Your task to perform on an android device: change the clock display to analog Image 0: 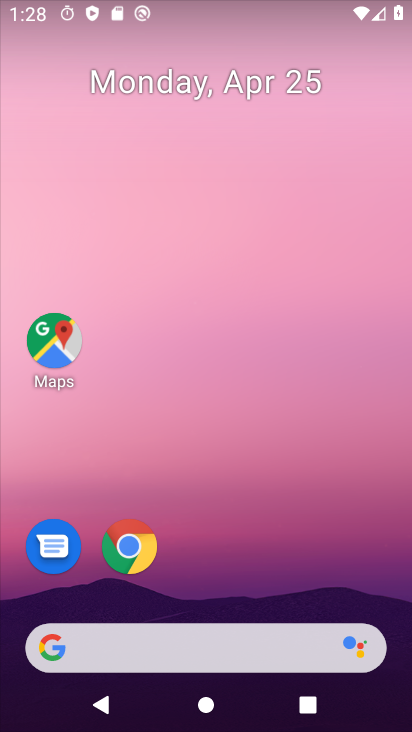
Step 0: drag from (220, 617) to (196, 5)
Your task to perform on an android device: change the clock display to analog Image 1: 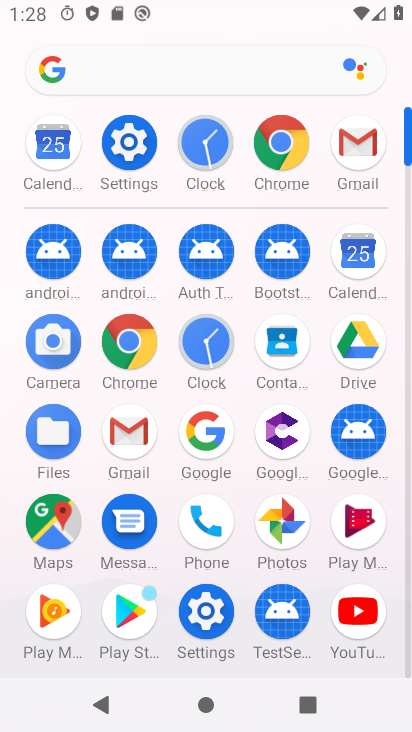
Step 1: click (217, 354)
Your task to perform on an android device: change the clock display to analog Image 2: 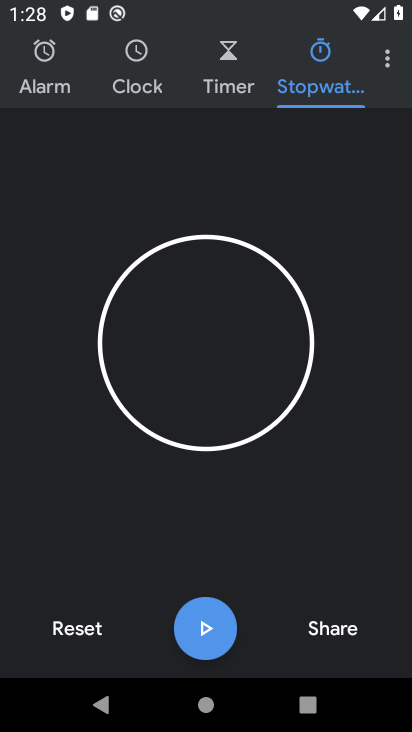
Step 2: click (384, 73)
Your task to perform on an android device: change the clock display to analog Image 3: 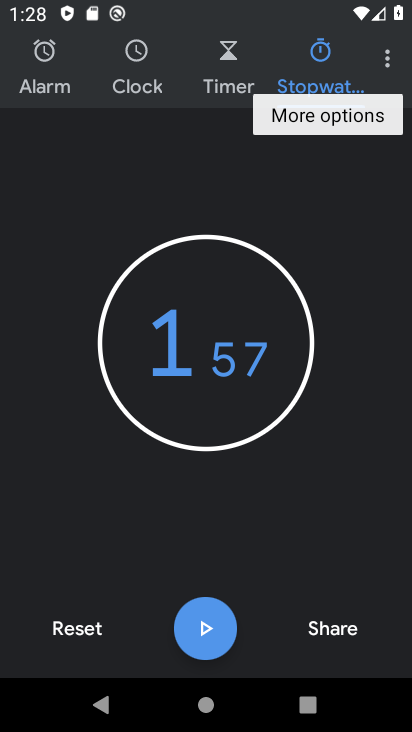
Step 3: click (384, 73)
Your task to perform on an android device: change the clock display to analog Image 4: 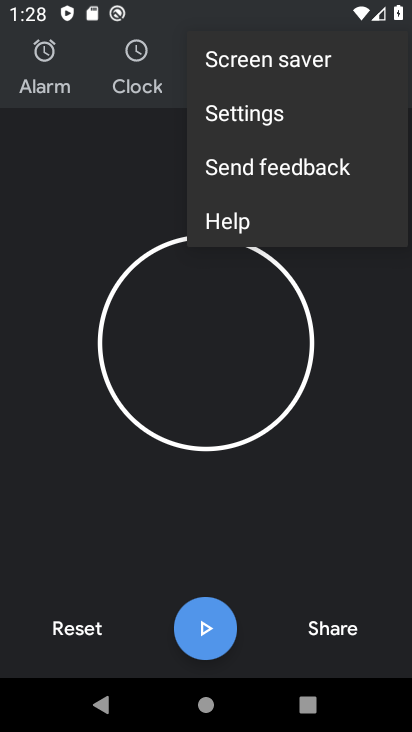
Step 4: click (289, 122)
Your task to perform on an android device: change the clock display to analog Image 5: 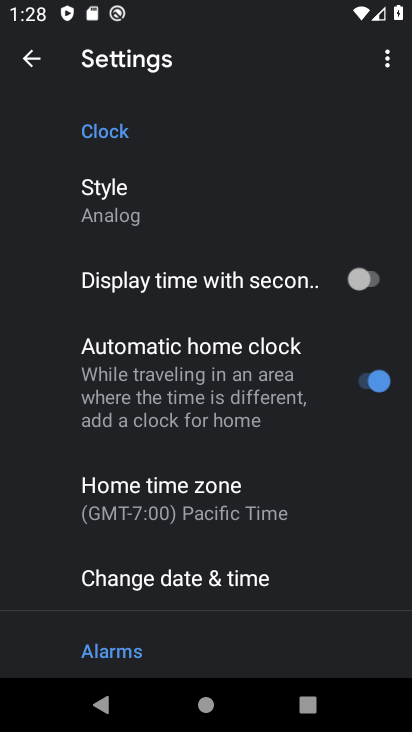
Step 5: click (168, 227)
Your task to perform on an android device: change the clock display to analog Image 6: 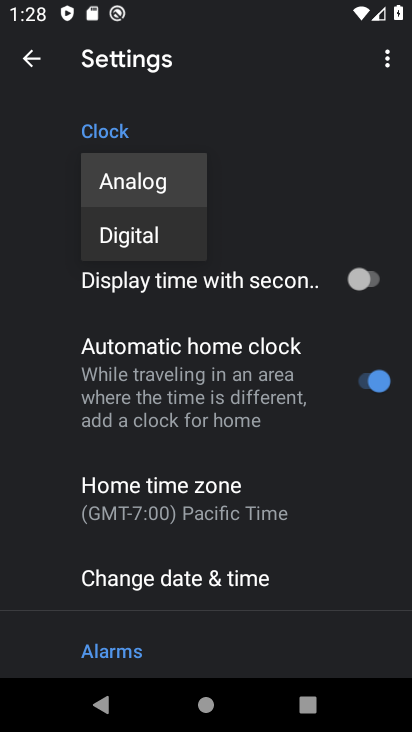
Step 6: click (185, 188)
Your task to perform on an android device: change the clock display to analog Image 7: 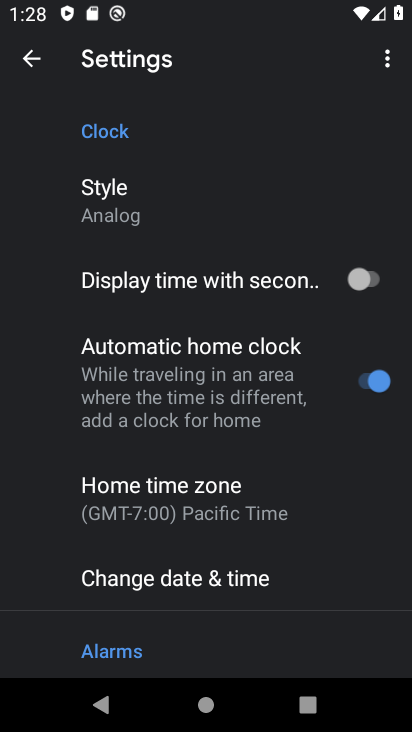
Step 7: task complete